Your task to perform on an android device: Open CNN.com Image 0: 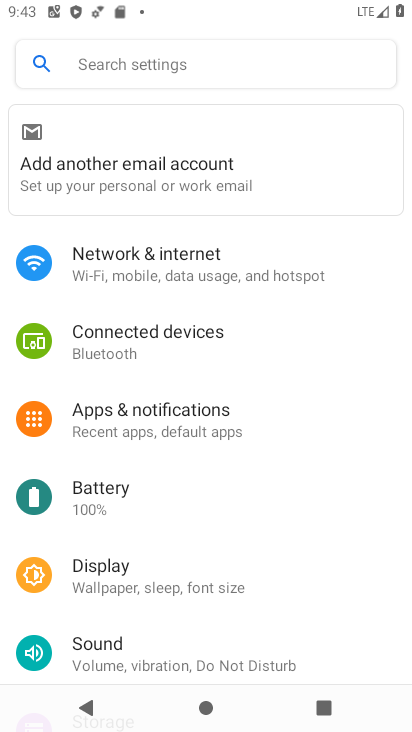
Step 0: press back button
Your task to perform on an android device: Open CNN.com Image 1: 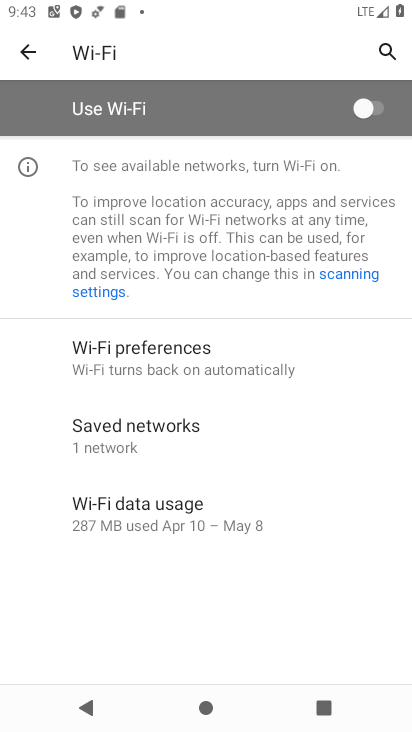
Step 1: press back button
Your task to perform on an android device: Open CNN.com Image 2: 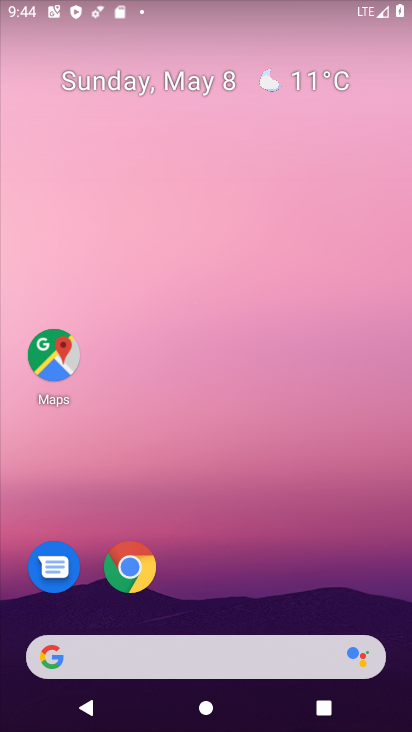
Step 2: click (120, 562)
Your task to perform on an android device: Open CNN.com Image 3: 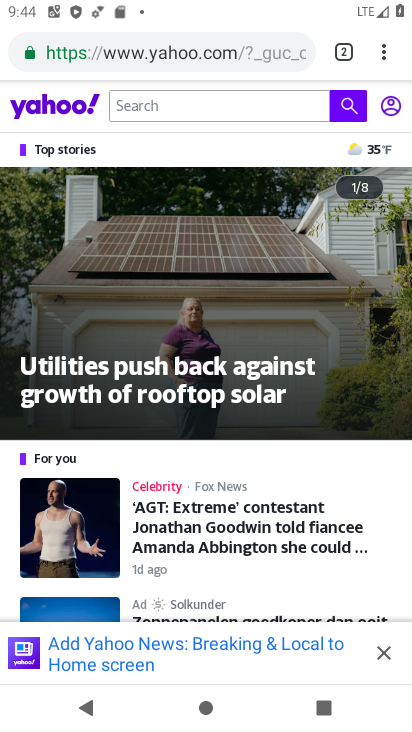
Step 3: click (343, 48)
Your task to perform on an android device: Open CNN.com Image 4: 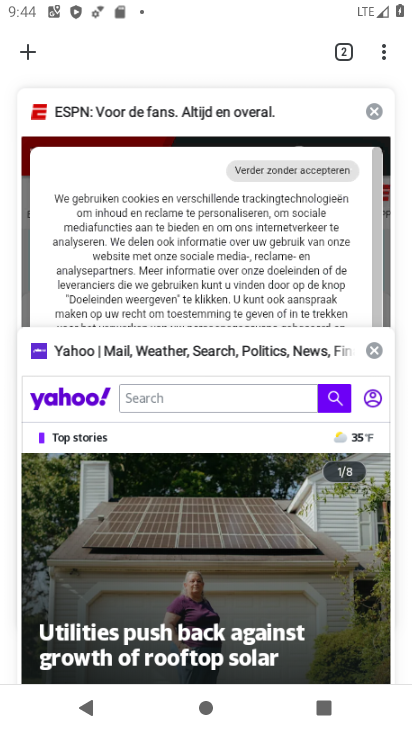
Step 4: click (27, 44)
Your task to perform on an android device: Open CNN.com Image 5: 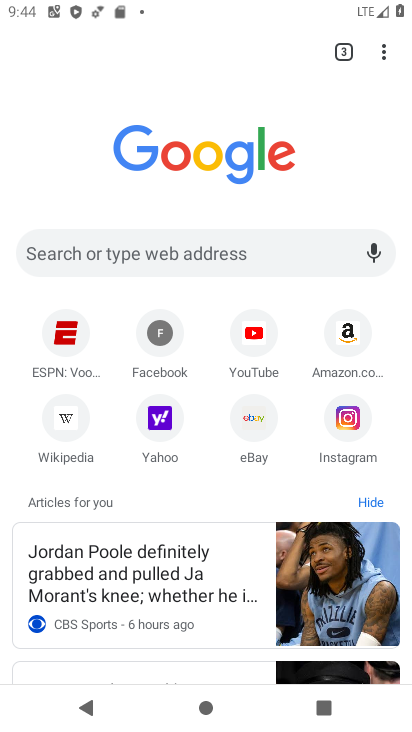
Step 5: click (127, 263)
Your task to perform on an android device: Open CNN.com Image 6: 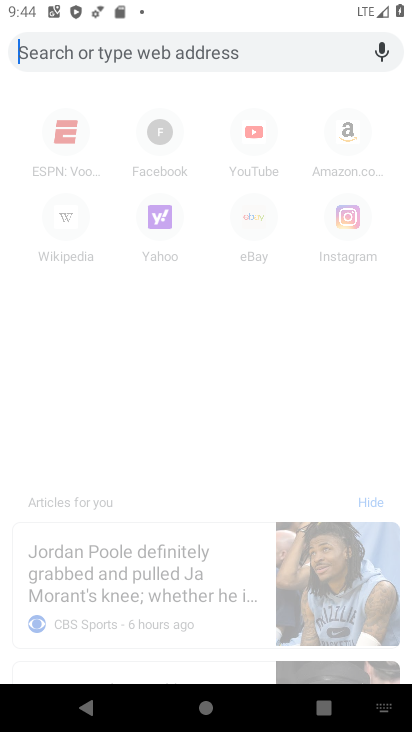
Step 6: type "cnn.com"
Your task to perform on an android device: Open CNN.com Image 7: 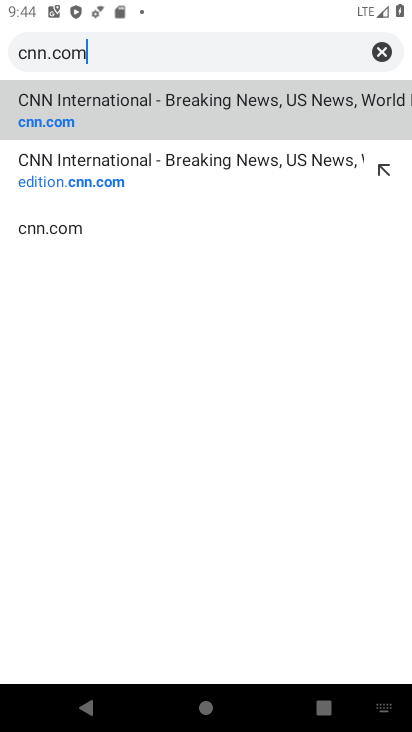
Step 7: click (154, 107)
Your task to perform on an android device: Open CNN.com Image 8: 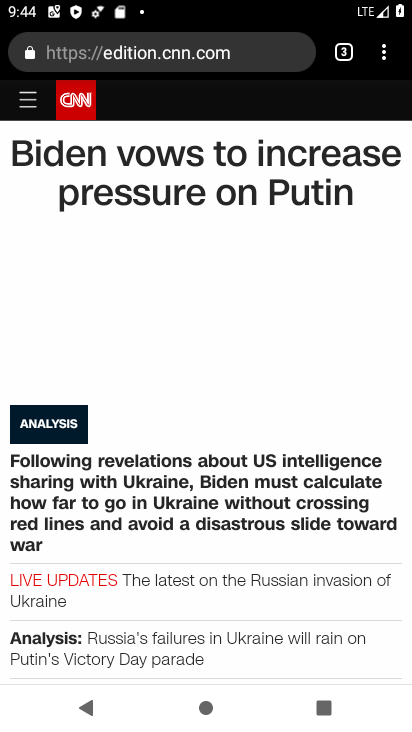
Step 8: task complete